Your task to perform on an android device: remove spam from my inbox in the gmail app Image 0: 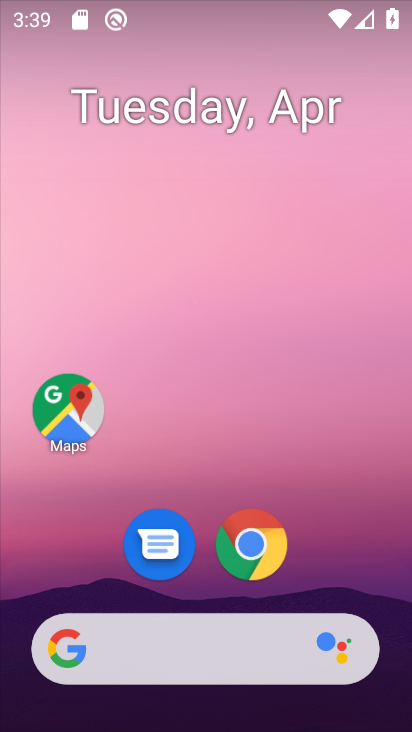
Step 0: drag from (300, 593) to (329, 55)
Your task to perform on an android device: remove spam from my inbox in the gmail app Image 1: 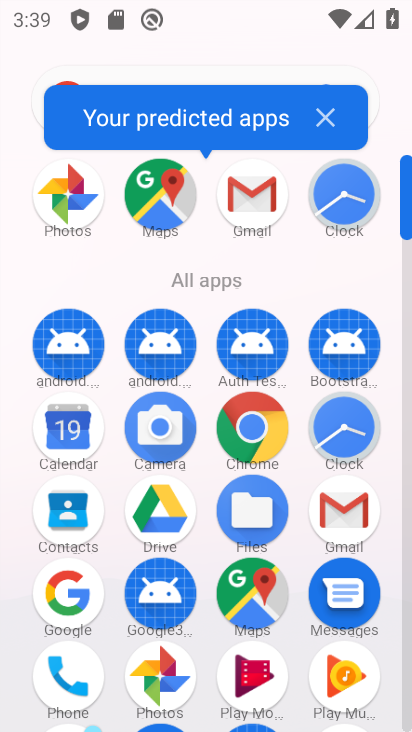
Step 1: click (340, 506)
Your task to perform on an android device: remove spam from my inbox in the gmail app Image 2: 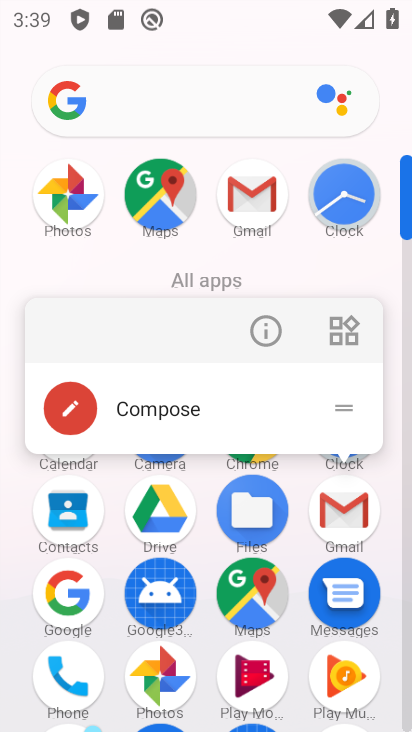
Step 2: click (340, 506)
Your task to perform on an android device: remove spam from my inbox in the gmail app Image 3: 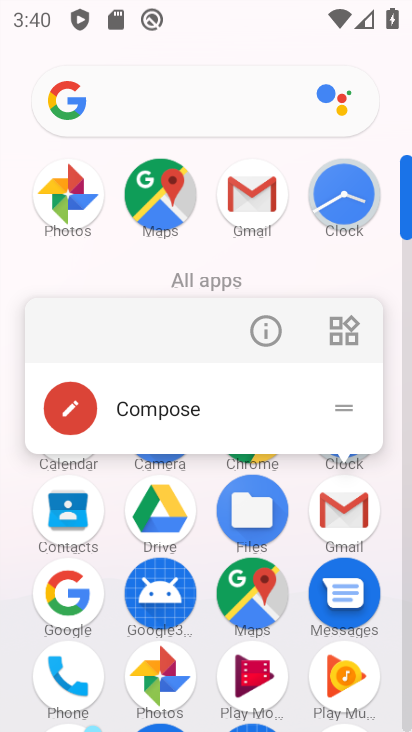
Step 3: click (339, 505)
Your task to perform on an android device: remove spam from my inbox in the gmail app Image 4: 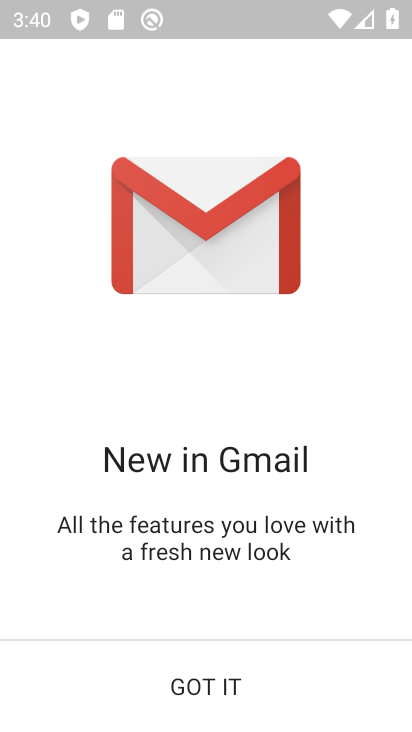
Step 4: click (211, 679)
Your task to perform on an android device: remove spam from my inbox in the gmail app Image 5: 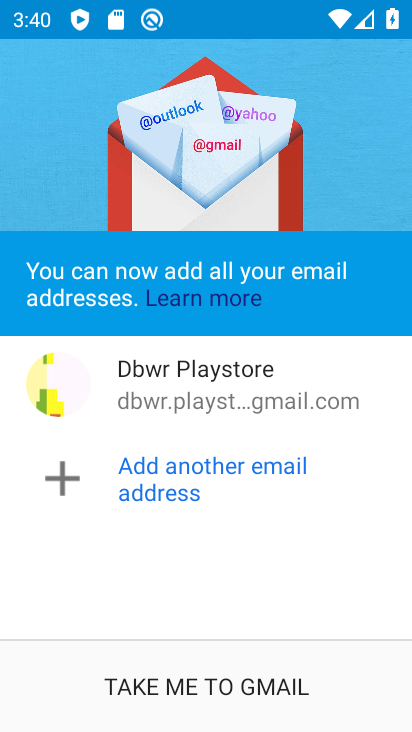
Step 5: click (211, 679)
Your task to perform on an android device: remove spam from my inbox in the gmail app Image 6: 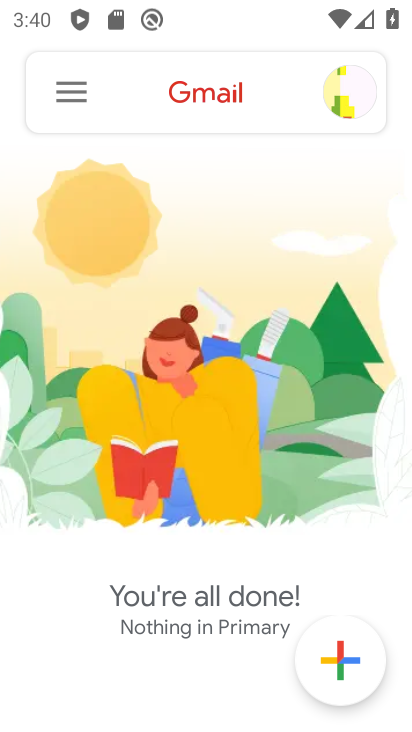
Step 6: click (65, 81)
Your task to perform on an android device: remove spam from my inbox in the gmail app Image 7: 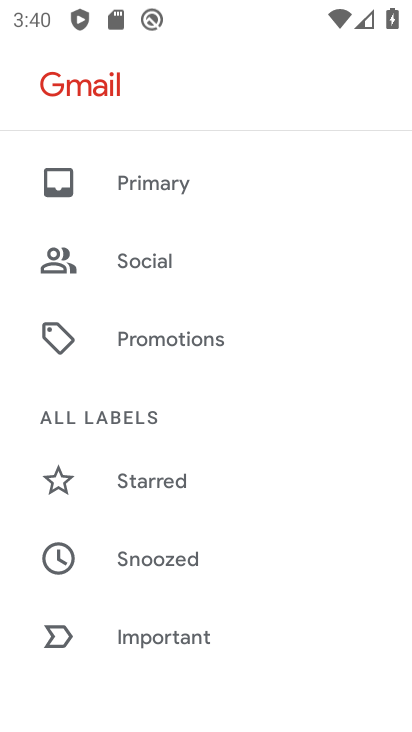
Step 7: drag from (164, 595) to (242, 173)
Your task to perform on an android device: remove spam from my inbox in the gmail app Image 8: 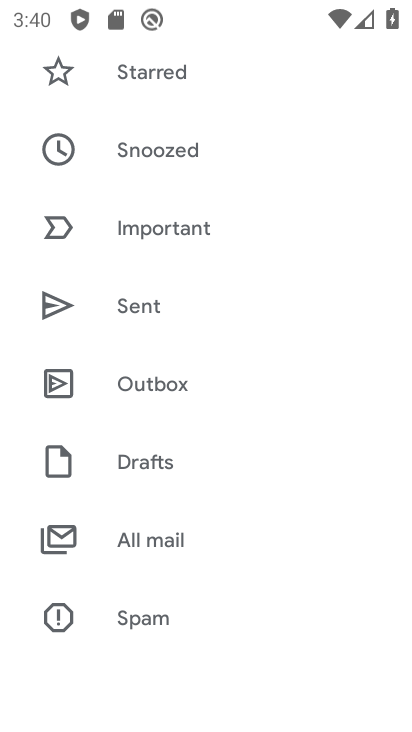
Step 8: click (129, 605)
Your task to perform on an android device: remove spam from my inbox in the gmail app Image 9: 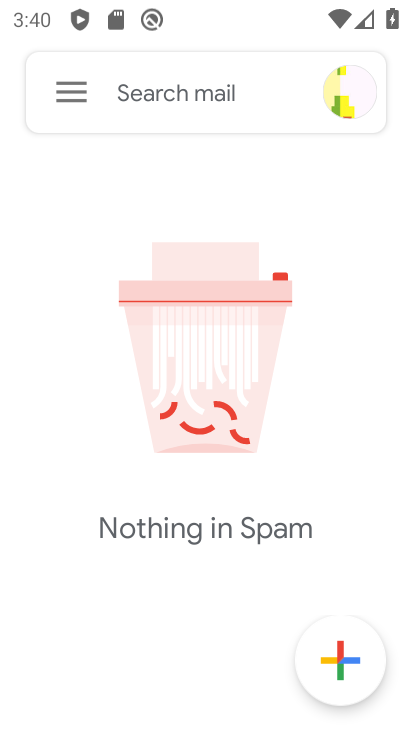
Step 9: task complete